Your task to perform on an android device: Search for "razer blackwidow" on bestbuy.com, select the first entry, add it to the cart, then select checkout. Image 0: 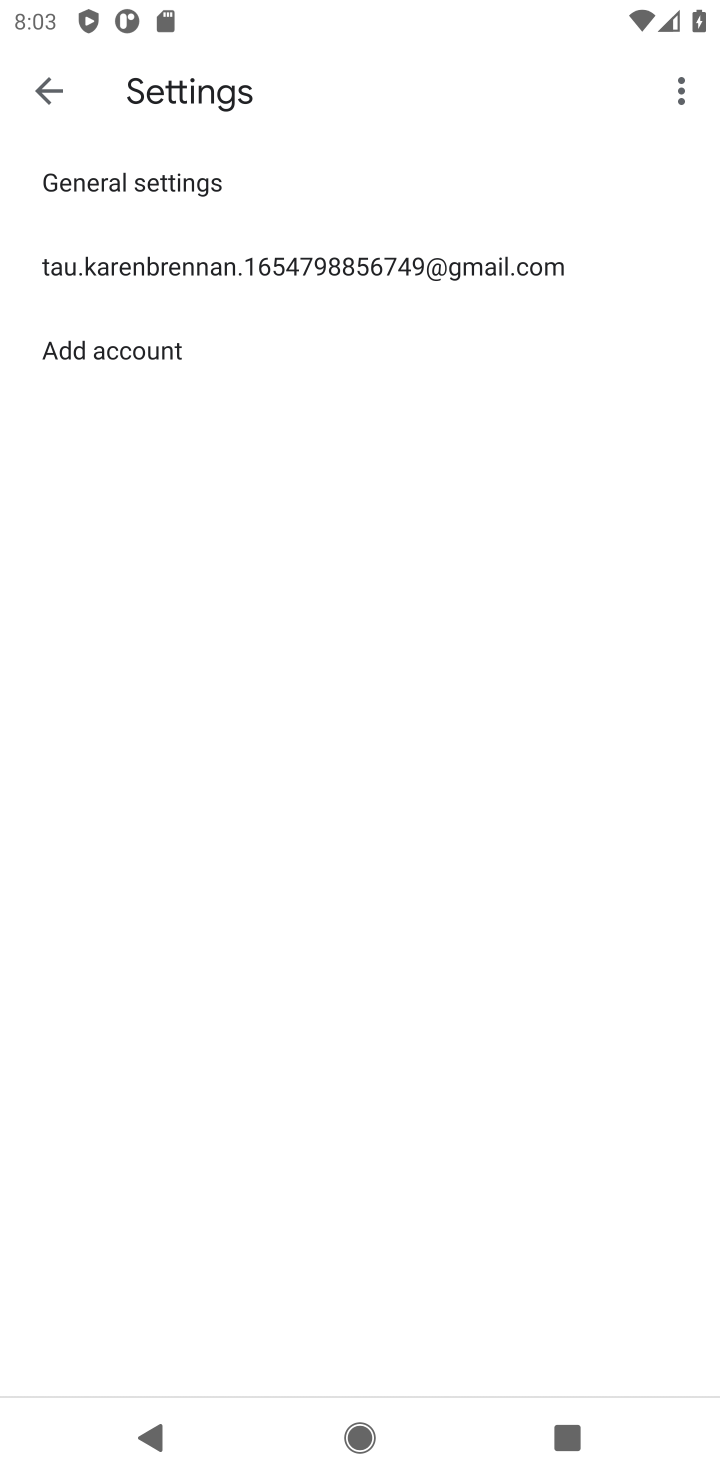
Step 0: click (46, 97)
Your task to perform on an android device: Search for "razer blackwidow" on bestbuy.com, select the first entry, add it to the cart, then select checkout. Image 1: 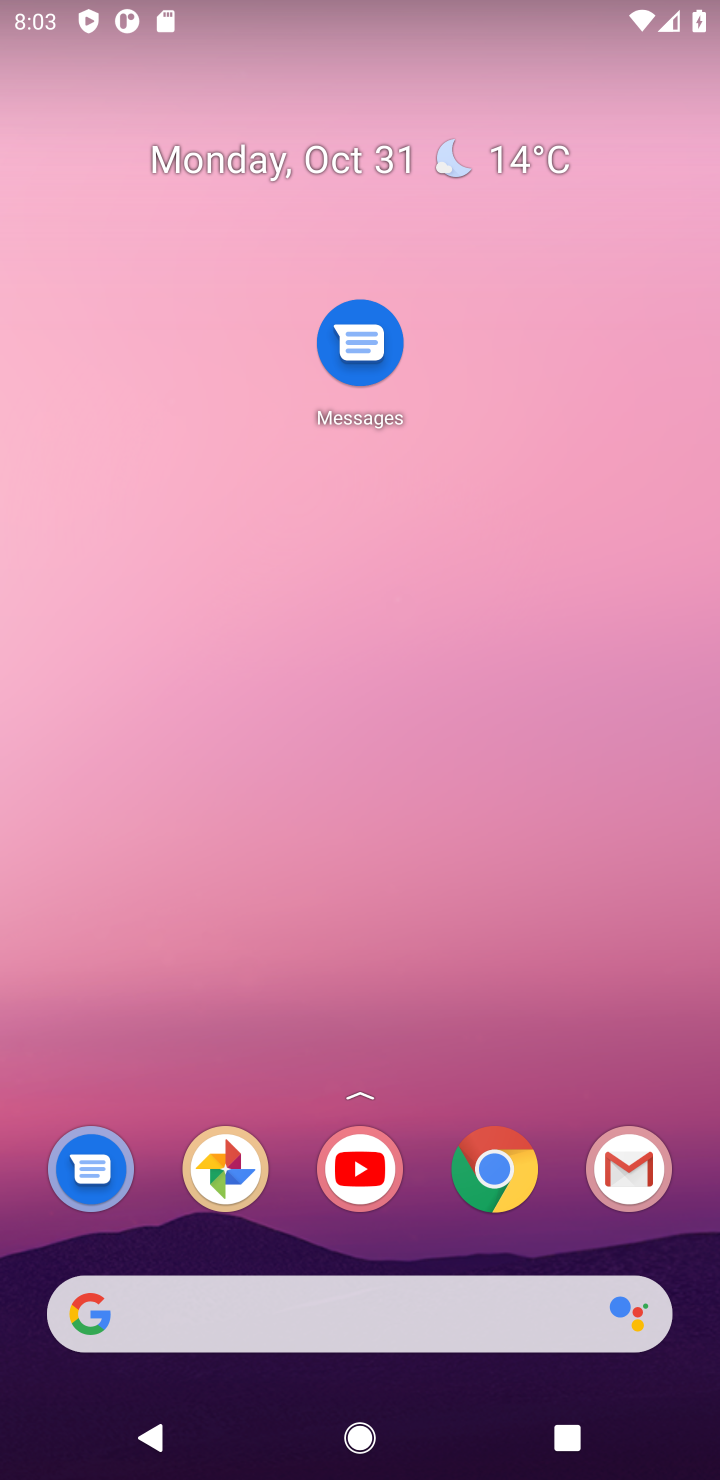
Step 1: drag from (304, 1254) to (279, 373)
Your task to perform on an android device: Search for "razer blackwidow" on bestbuy.com, select the first entry, add it to the cart, then select checkout. Image 2: 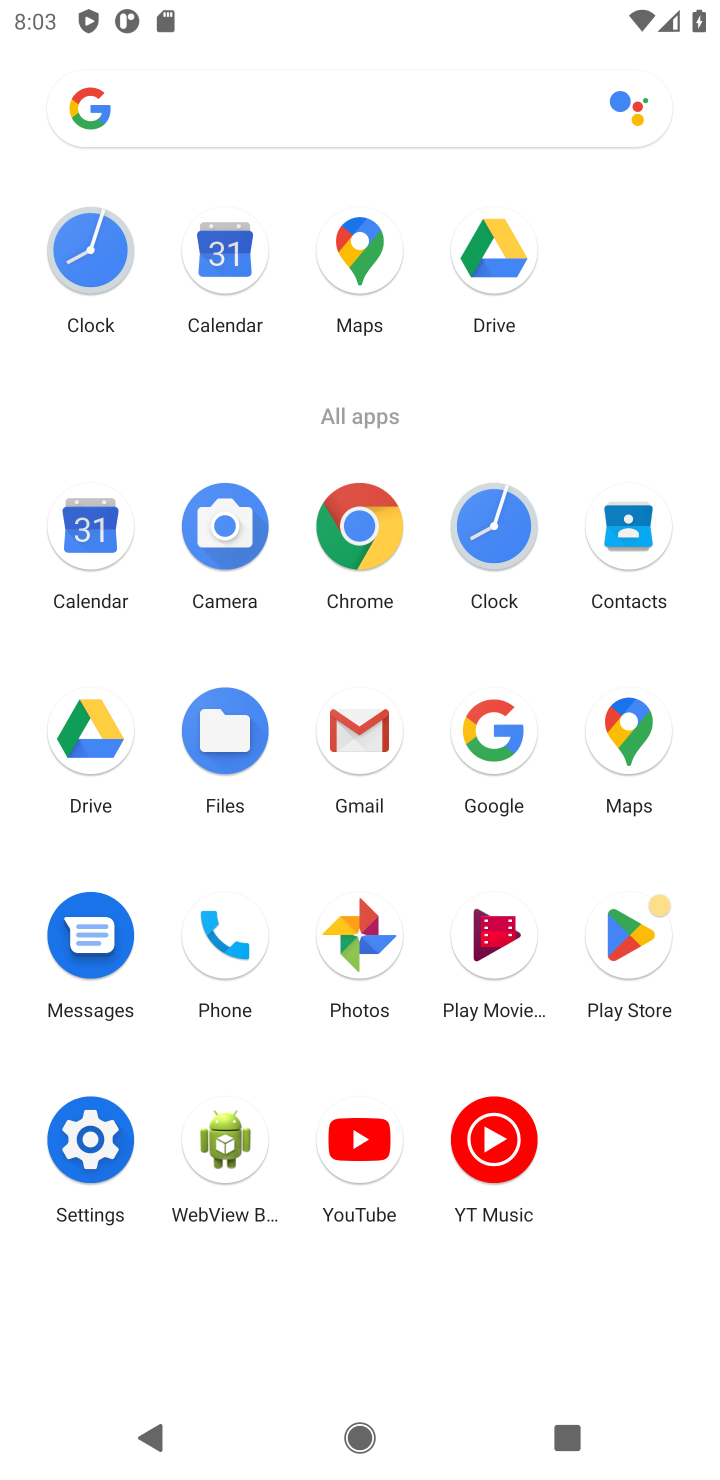
Step 2: click (497, 714)
Your task to perform on an android device: Search for "razer blackwidow" on bestbuy.com, select the first entry, add it to the cart, then select checkout. Image 3: 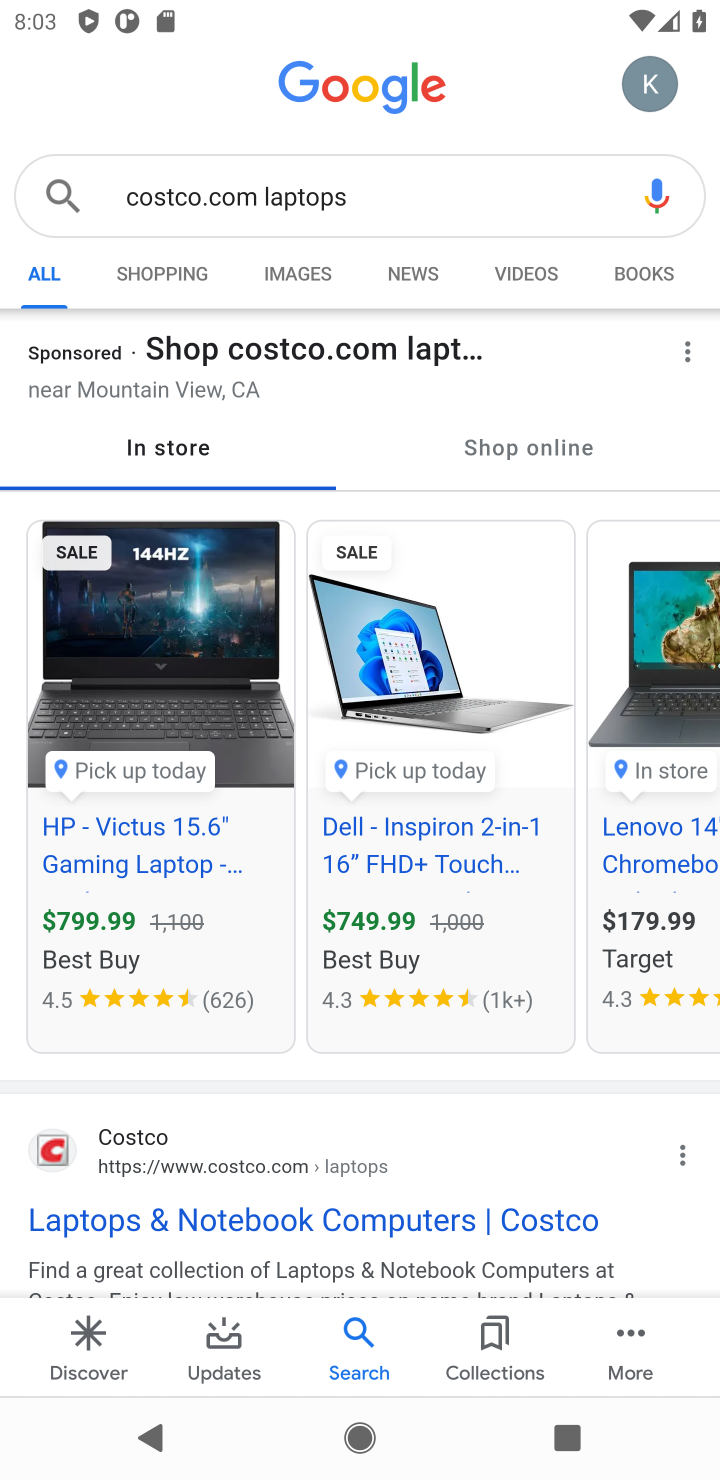
Step 3: click (353, 183)
Your task to perform on an android device: Search for "razer blackwidow" on bestbuy.com, select the first entry, add it to the cart, then select checkout. Image 4: 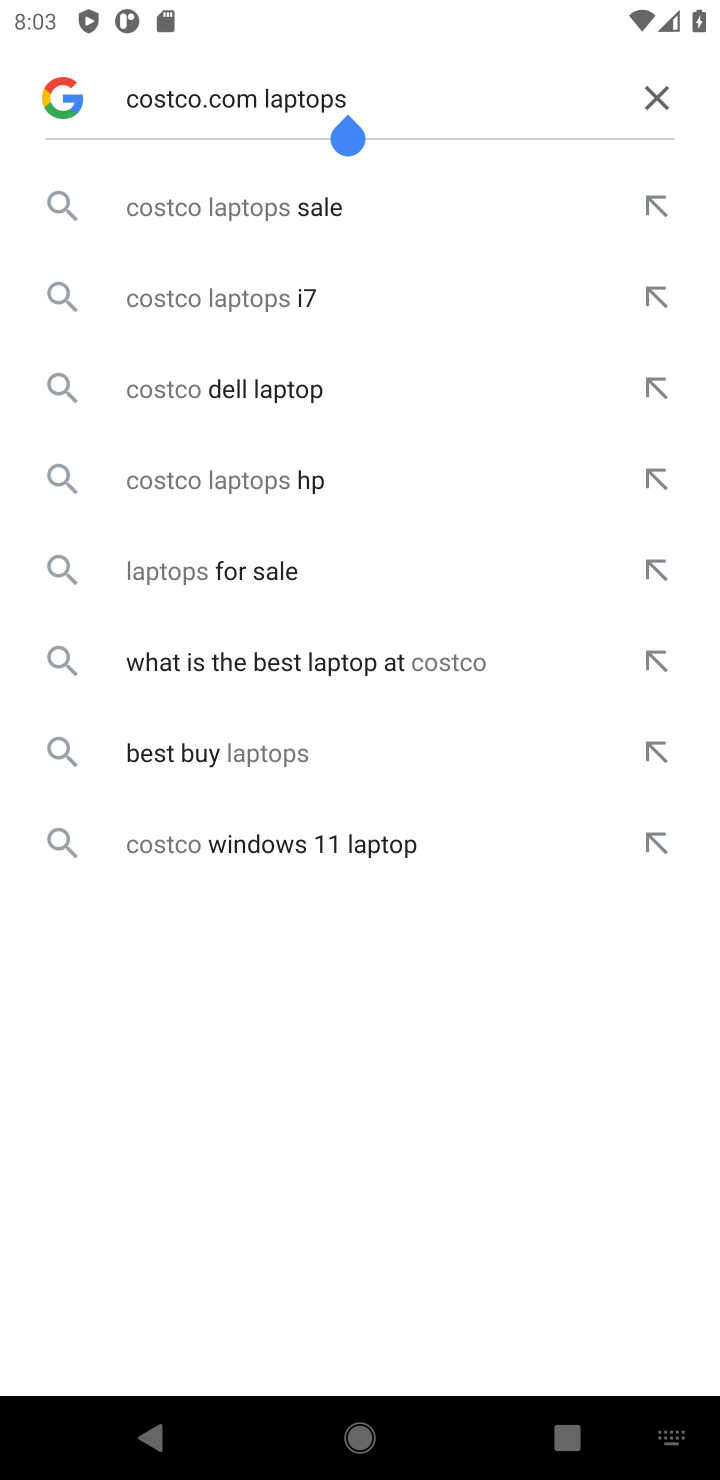
Step 4: click (644, 111)
Your task to perform on an android device: Search for "razer blackwidow" on bestbuy.com, select the first entry, add it to the cart, then select checkout. Image 5: 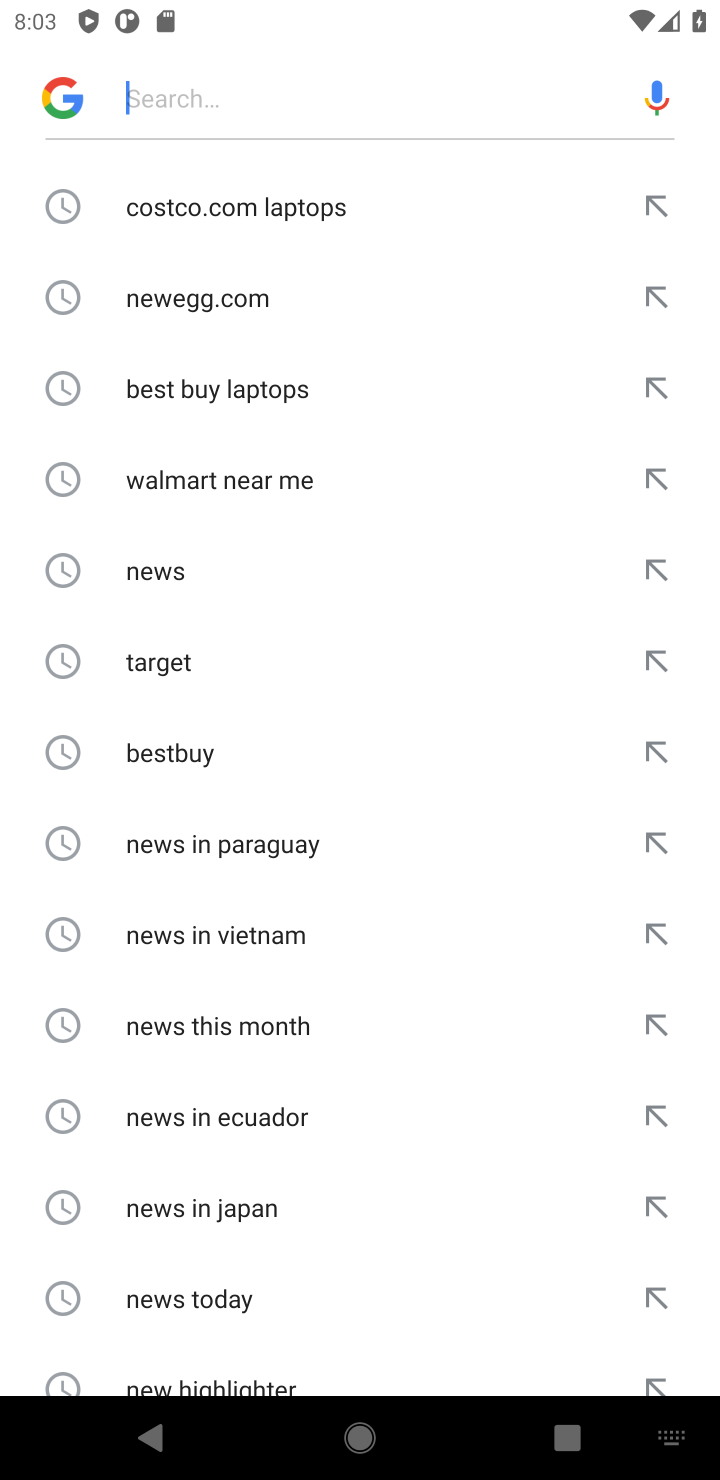
Step 5: click (292, 60)
Your task to perform on an android device: Search for "razer blackwidow" on bestbuy.com, select the first entry, add it to the cart, then select checkout. Image 6: 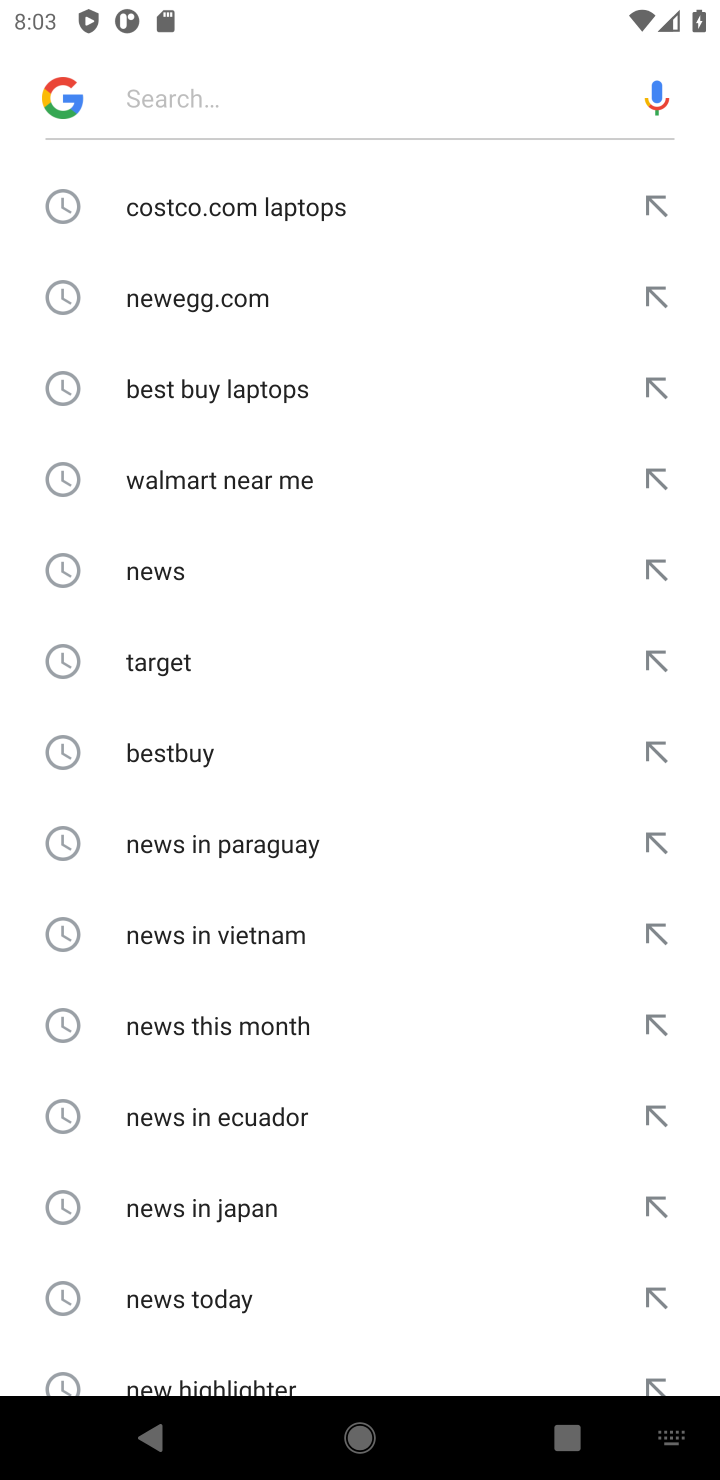
Step 6: type "bestbuy "
Your task to perform on an android device: Search for "razer blackwidow" on bestbuy.com, select the first entry, add it to the cart, then select checkout. Image 7: 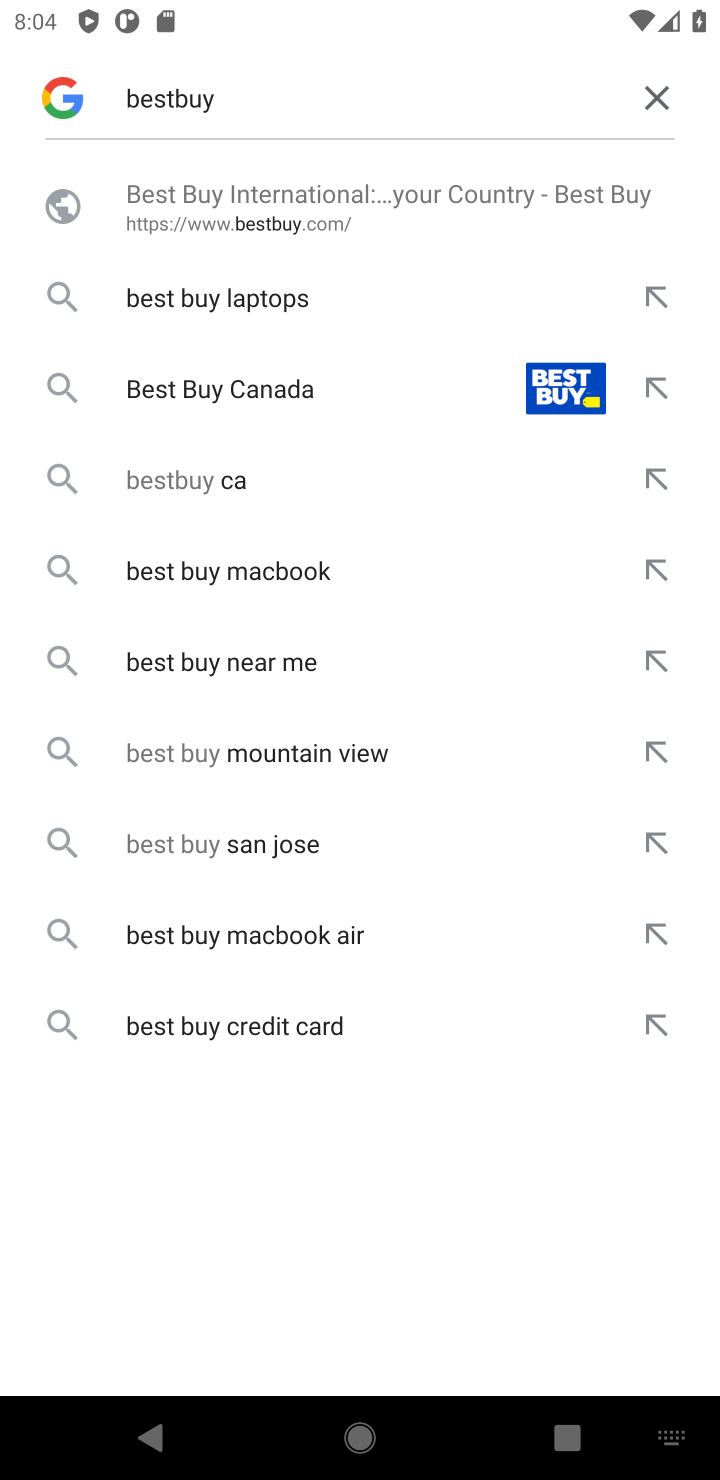
Step 7: click (229, 305)
Your task to perform on an android device: Search for "razer blackwidow" on bestbuy.com, select the first entry, add it to the cart, then select checkout. Image 8: 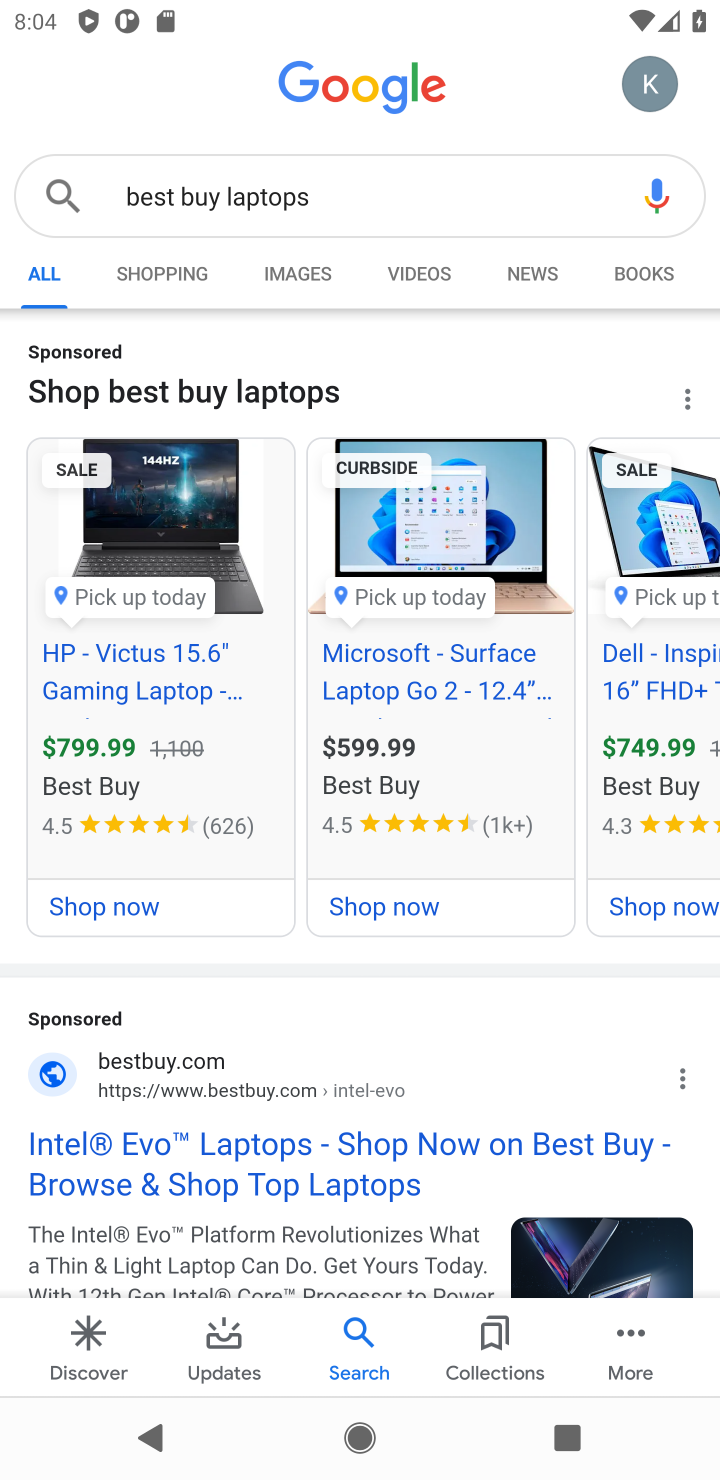
Step 8: drag from (294, 1067) to (406, 393)
Your task to perform on an android device: Search for "razer blackwidow" on bestbuy.com, select the first entry, add it to the cart, then select checkout. Image 9: 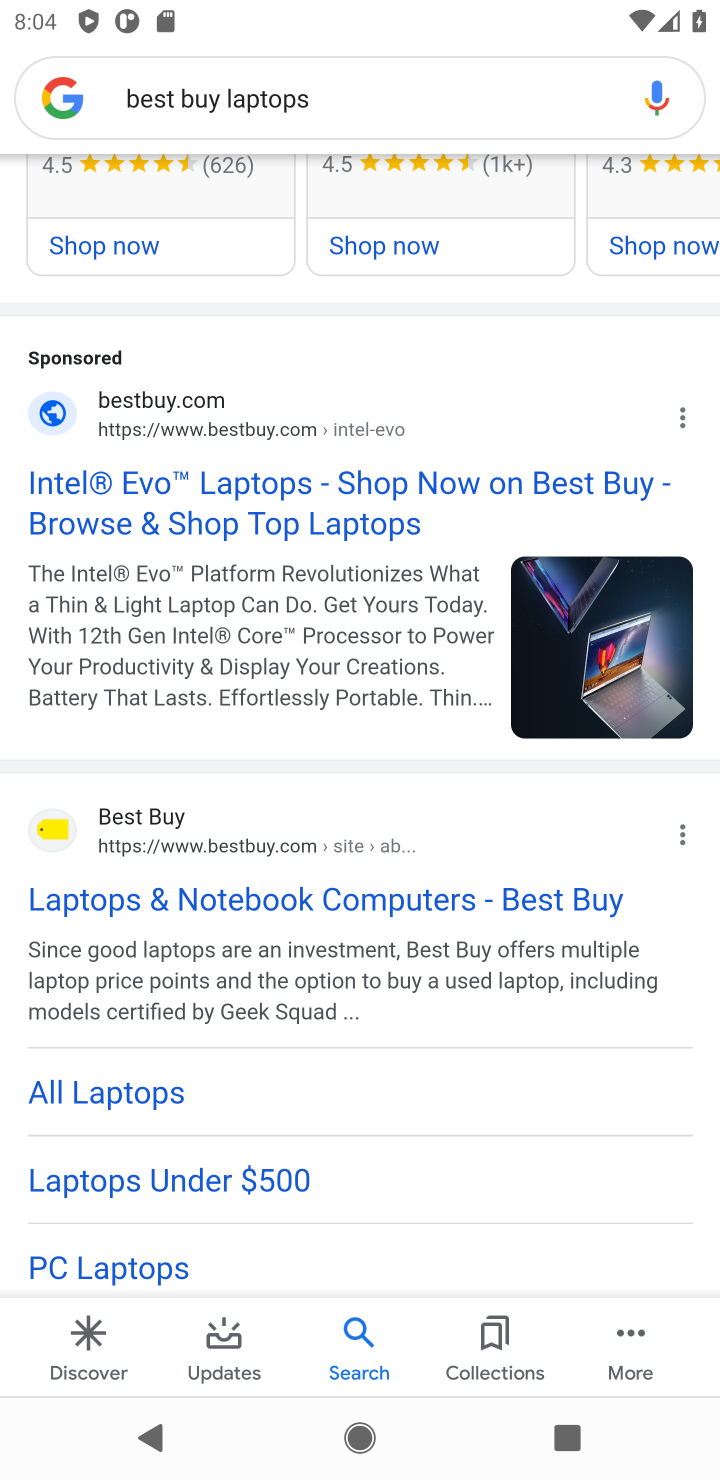
Step 9: click (47, 819)
Your task to perform on an android device: Search for "razer blackwidow" on bestbuy.com, select the first entry, add it to the cart, then select checkout. Image 10: 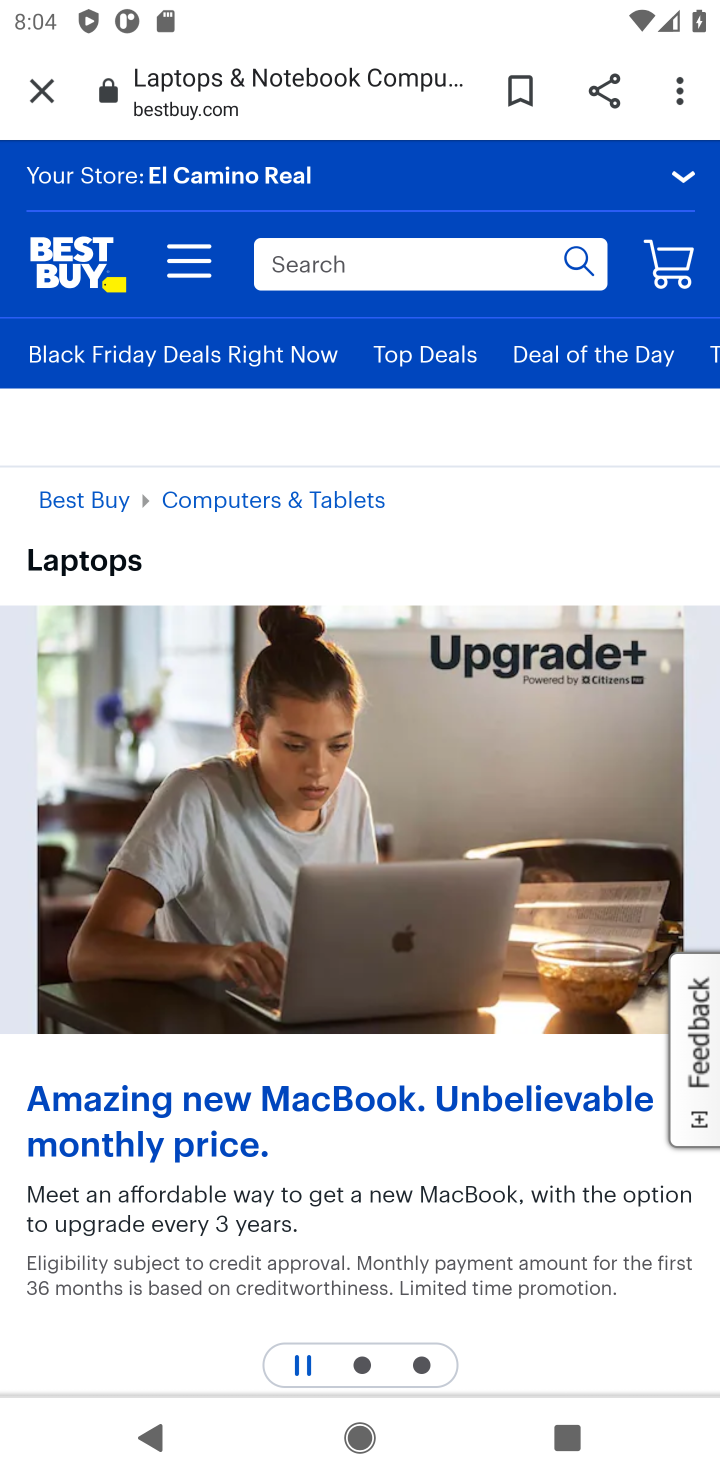
Step 10: click (329, 254)
Your task to perform on an android device: Search for "razer blackwidow" on bestbuy.com, select the first entry, add it to the cart, then select checkout. Image 11: 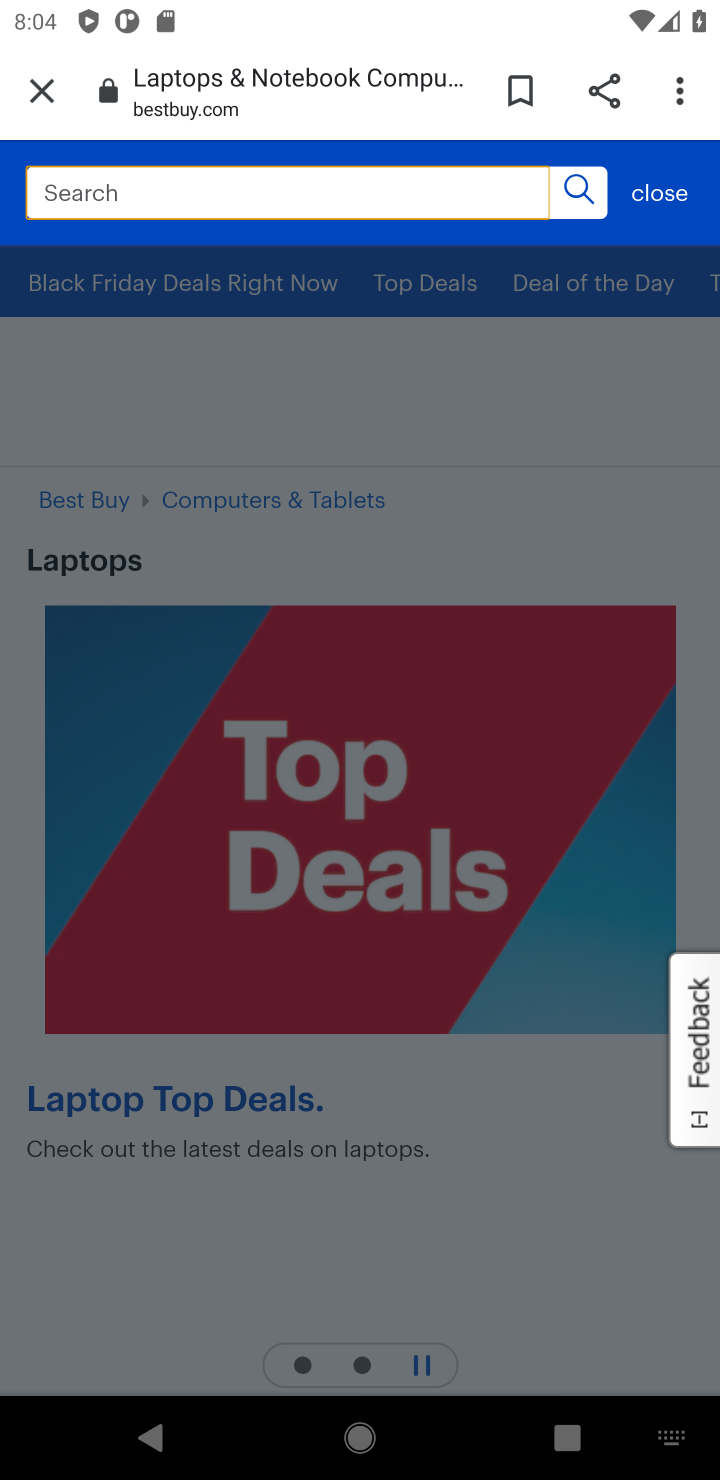
Step 11: click (155, 190)
Your task to perform on an android device: Search for "razer blackwidow" on bestbuy.com, select the first entry, add it to the cart, then select checkout. Image 12: 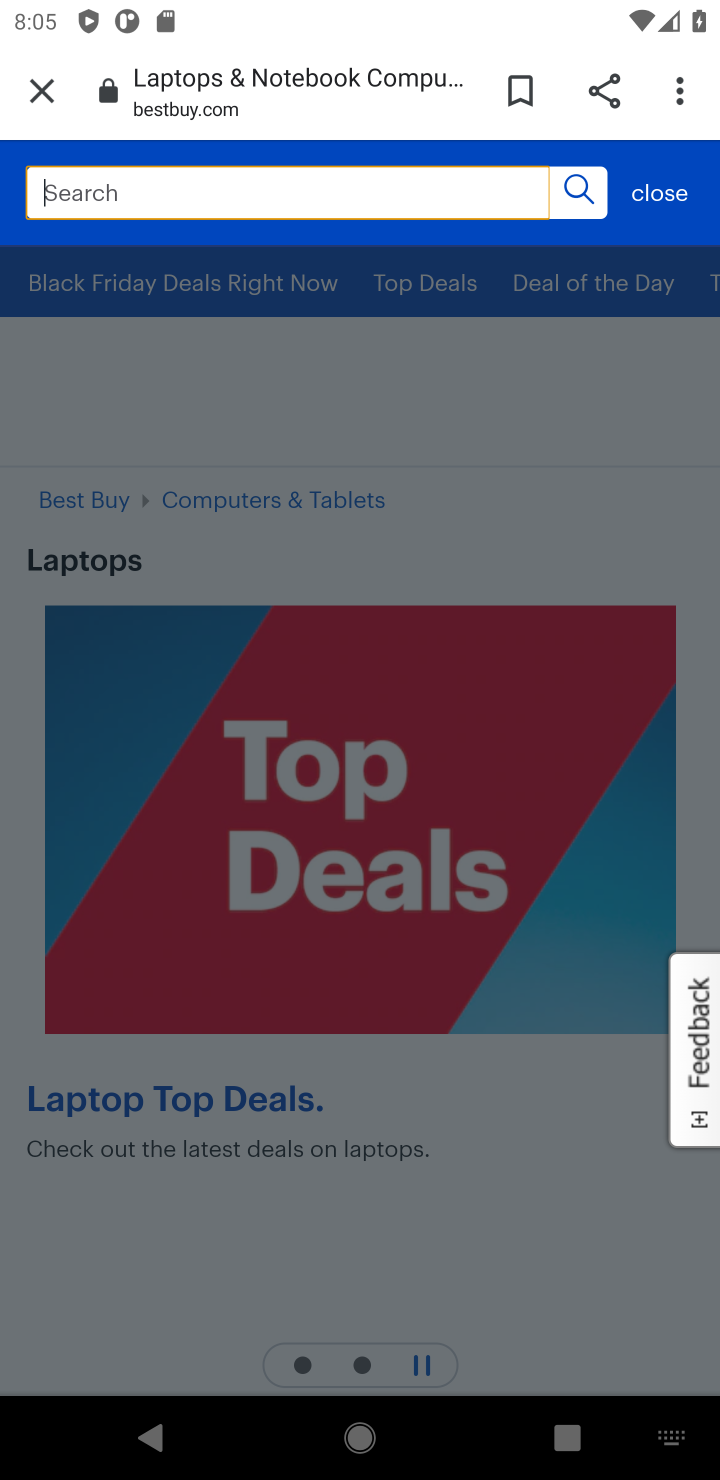
Step 12: click (122, 178)
Your task to perform on an android device: Search for "razer blackwidow" on bestbuy.com, select the first entry, add it to the cart, then select checkout. Image 13: 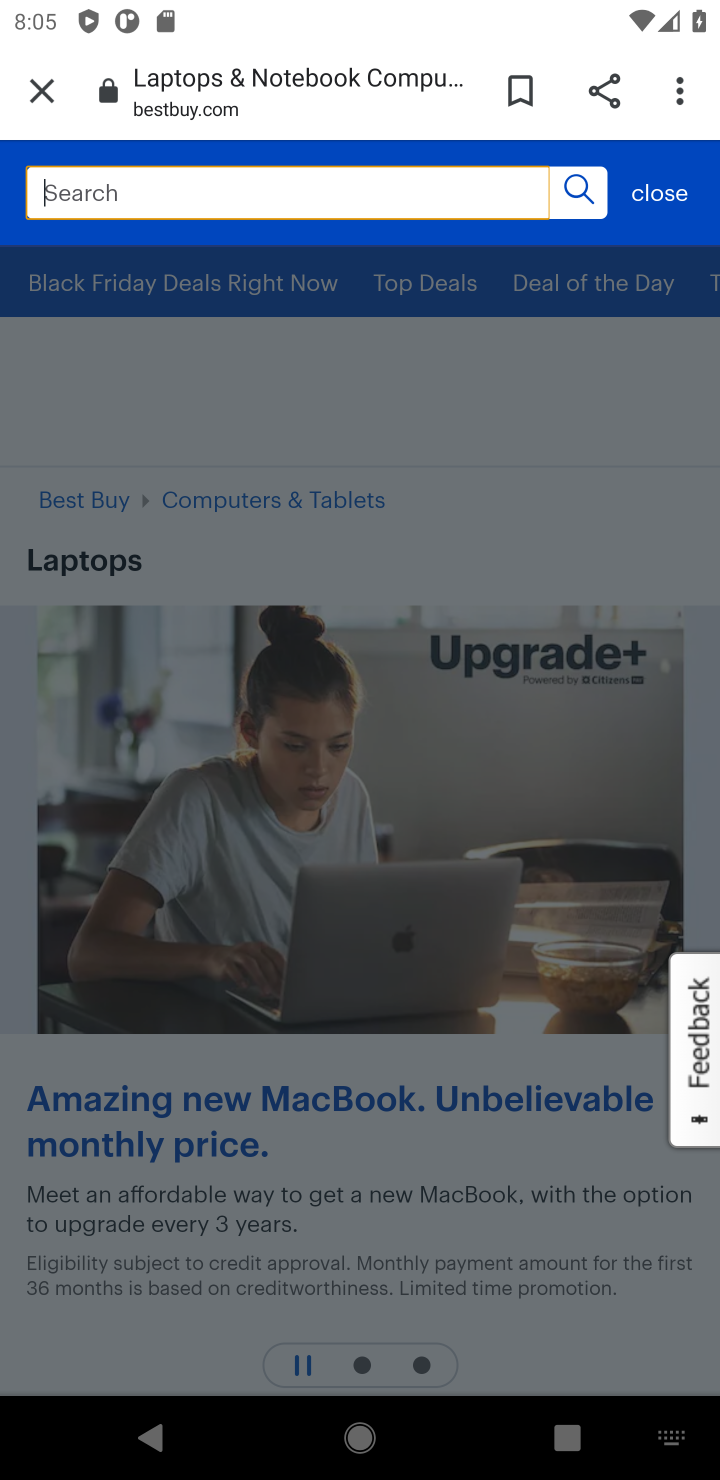
Step 13: type "razer blackwidow "
Your task to perform on an android device: Search for "razer blackwidow" on bestbuy.com, select the first entry, add it to the cart, then select checkout. Image 14: 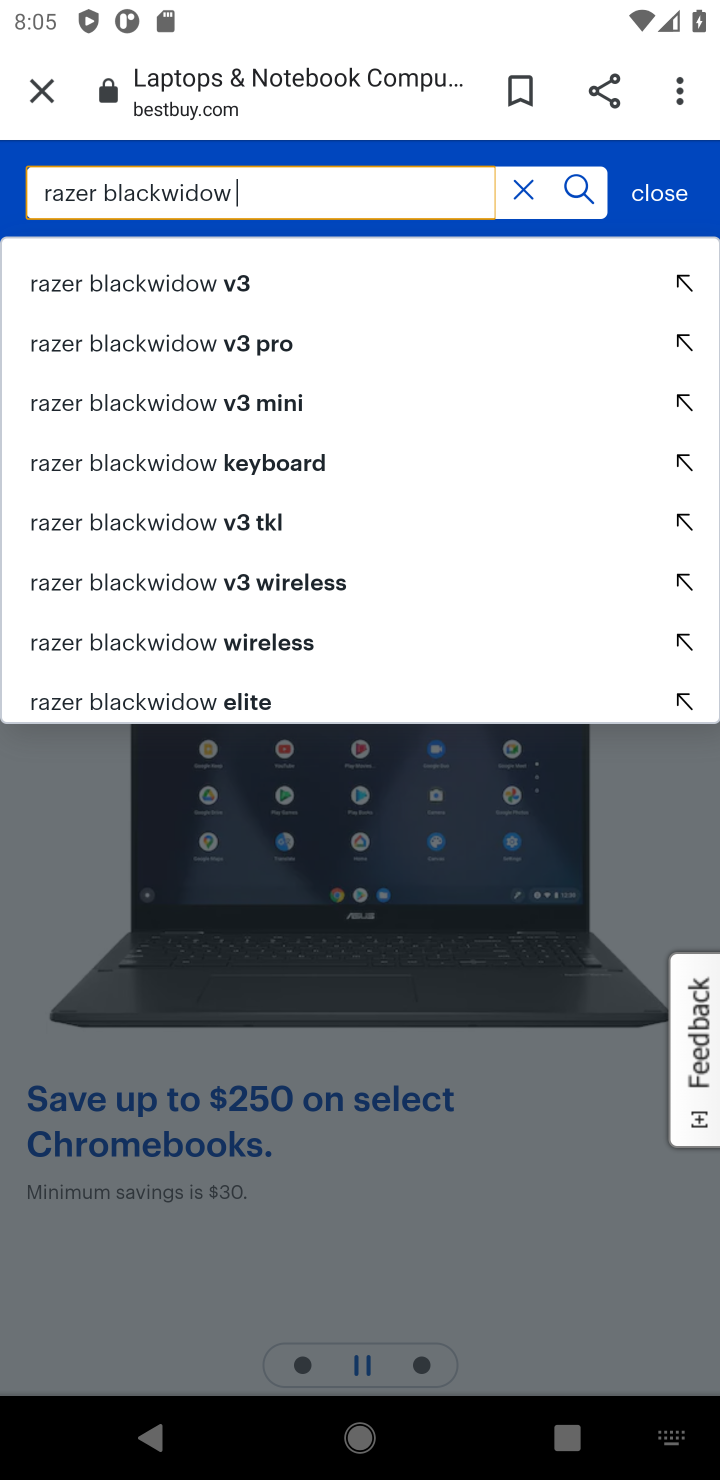
Step 14: click (188, 279)
Your task to perform on an android device: Search for "razer blackwidow" on bestbuy.com, select the first entry, add it to the cart, then select checkout. Image 15: 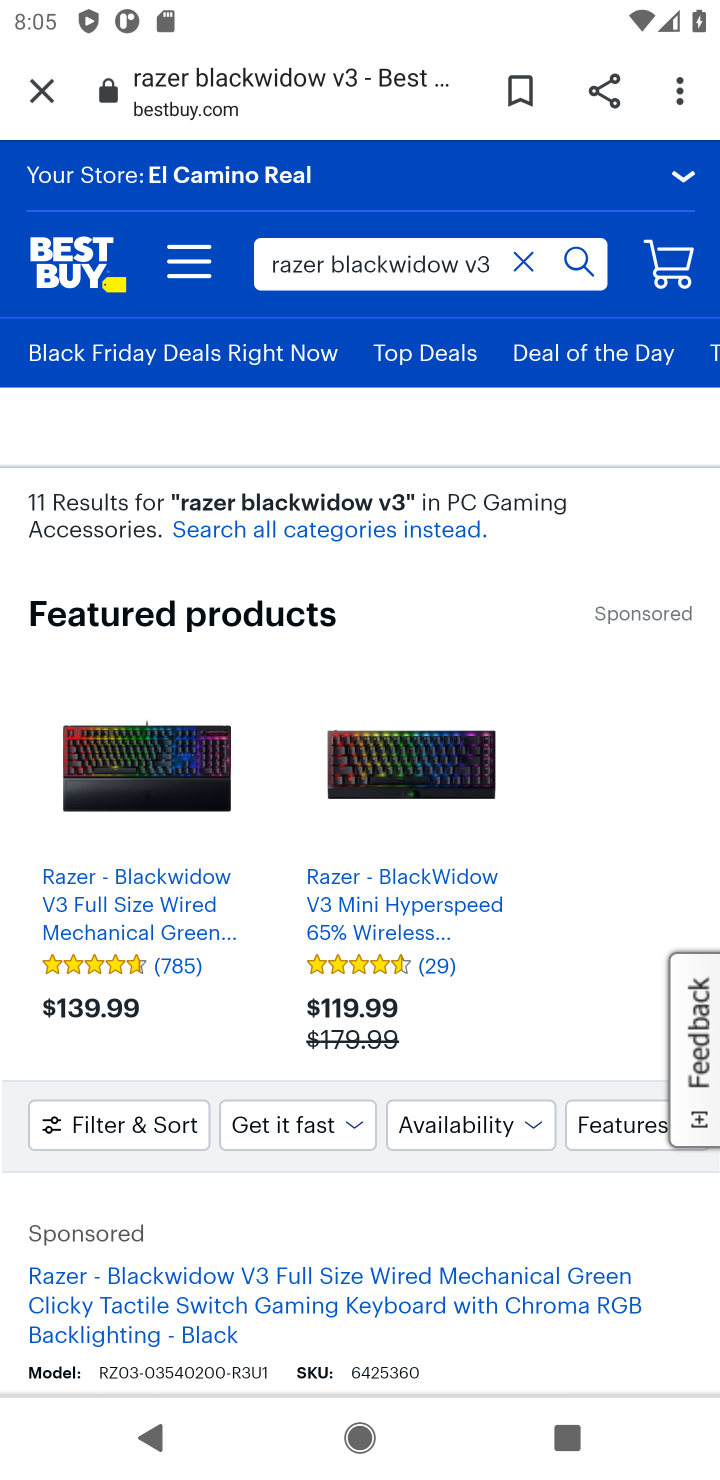
Step 15: click (139, 797)
Your task to perform on an android device: Search for "razer blackwidow" on bestbuy.com, select the first entry, add it to the cart, then select checkout. Image 16: 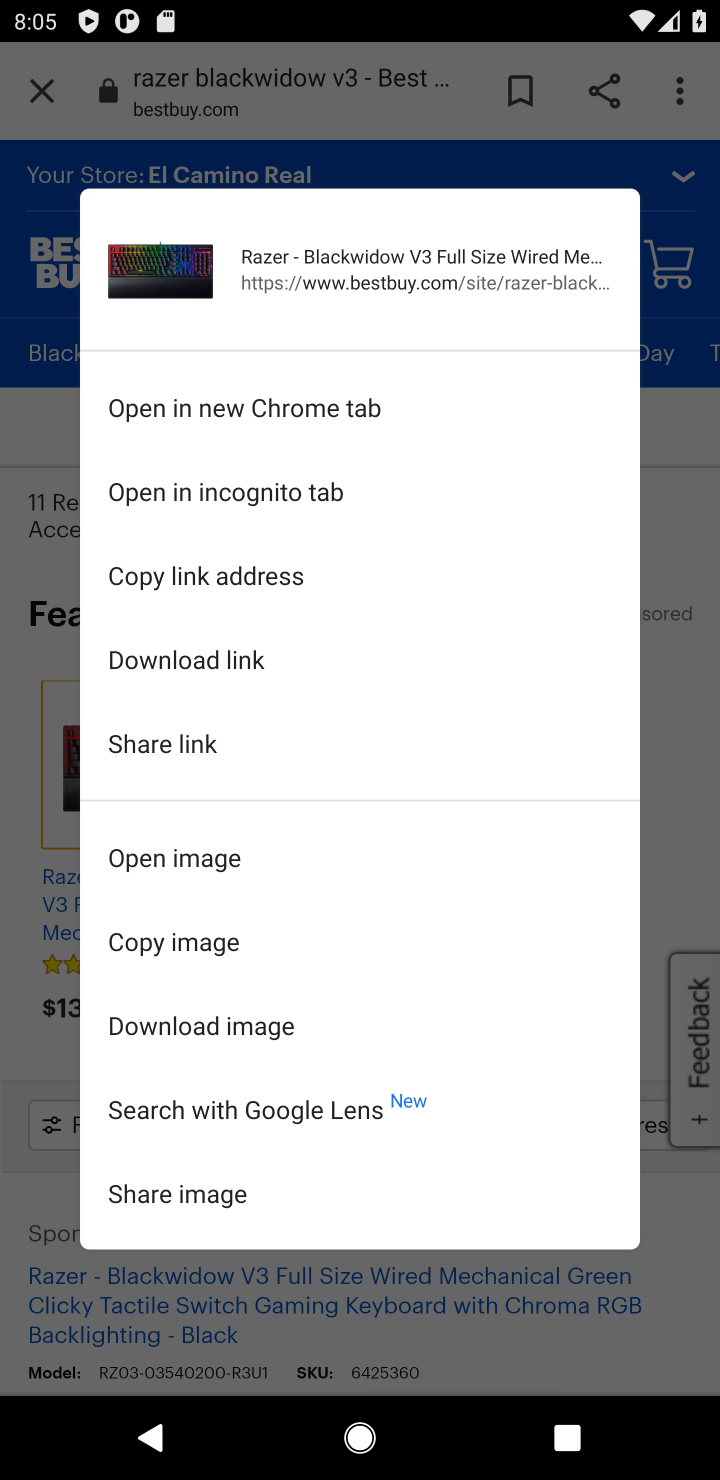
Step 16: click (680, 621)
Your task to perform on an android device: Search for "razer blackwidow" on bestbuy.com, select the first entry, add it to the cart, then select checkout. Image 17: 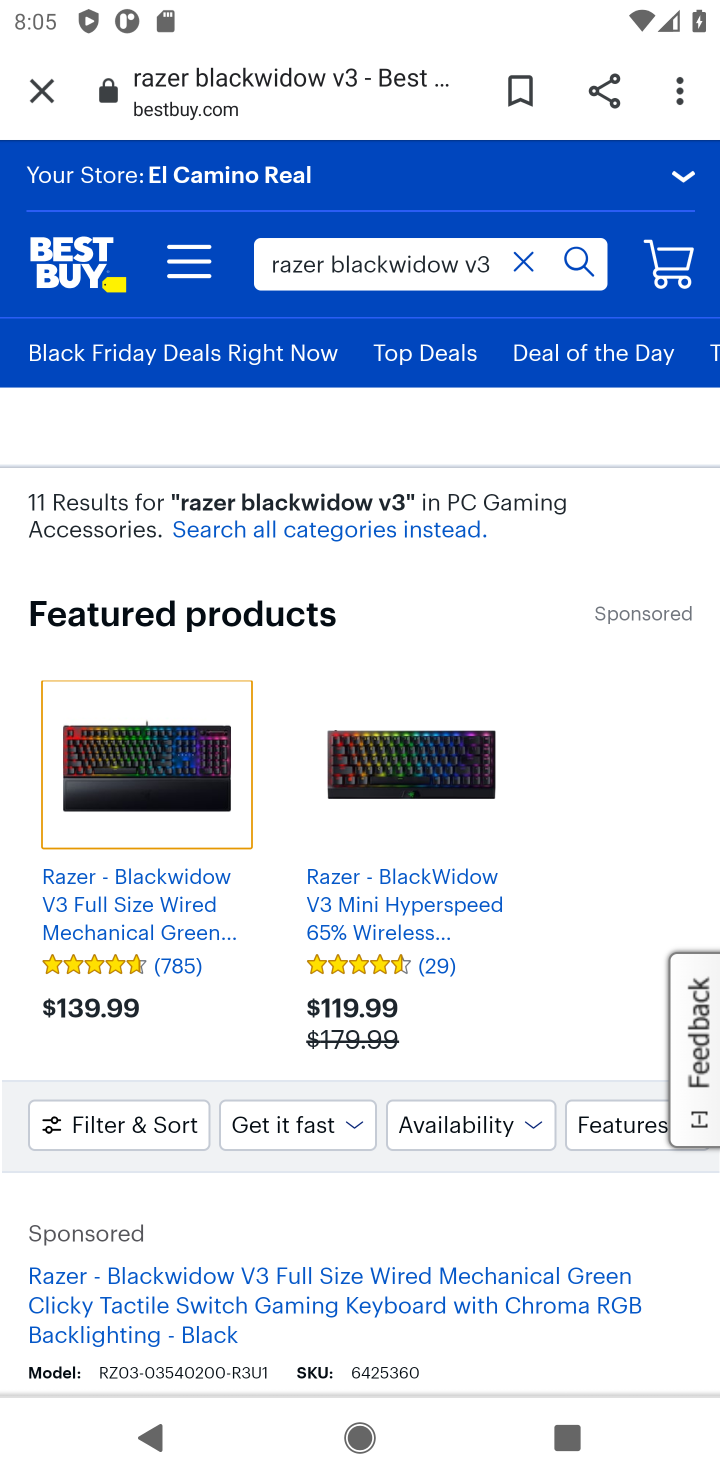
Step 17: click (135, 936)
Your task to perform on an android device: Search for "razer blackwidow" on bestbuy.com, select the first entry, add it to the cart, then select checkout. Image 18: 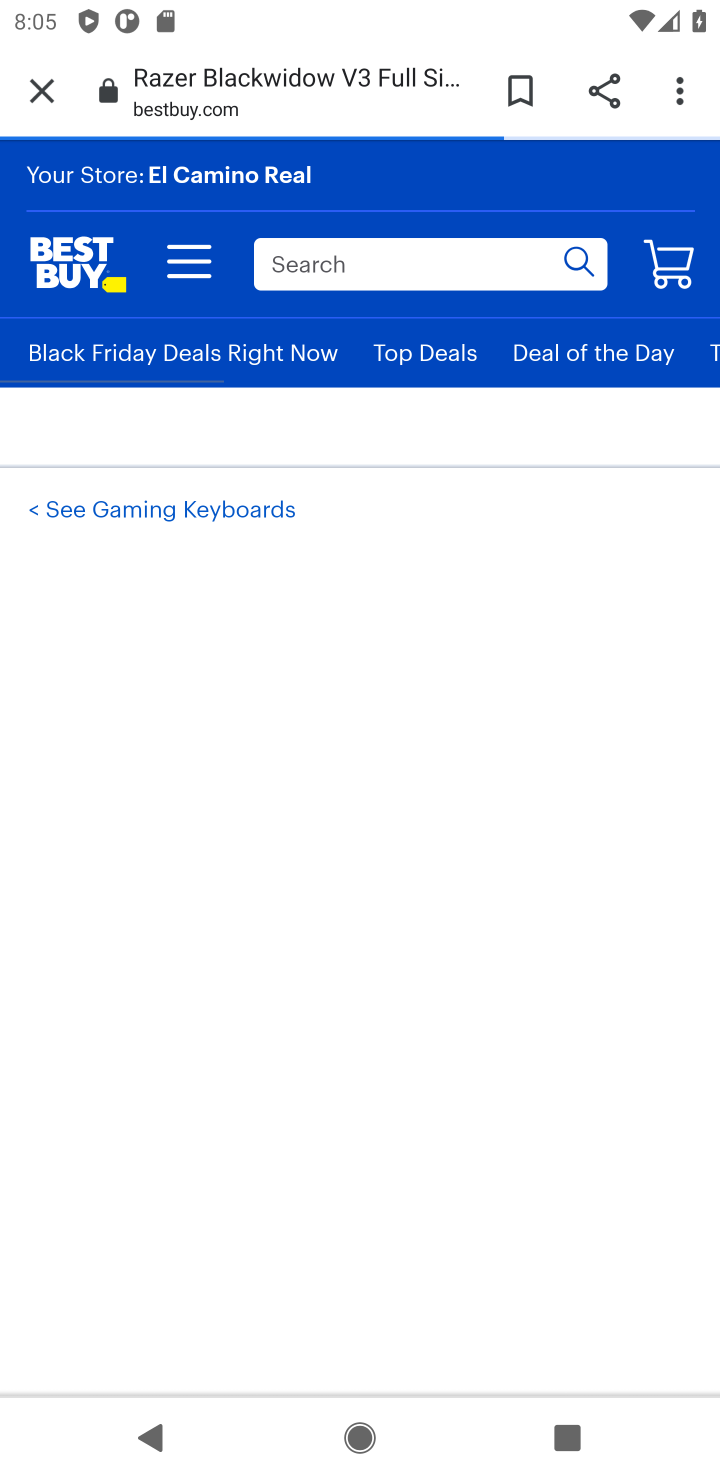
Step 18: click (115, 1004)
Your task to perform on an android device: Search for "razer blackwidow" on bestbuy.com, select the first entry, add it to the cart, then select checkout. Image 19: 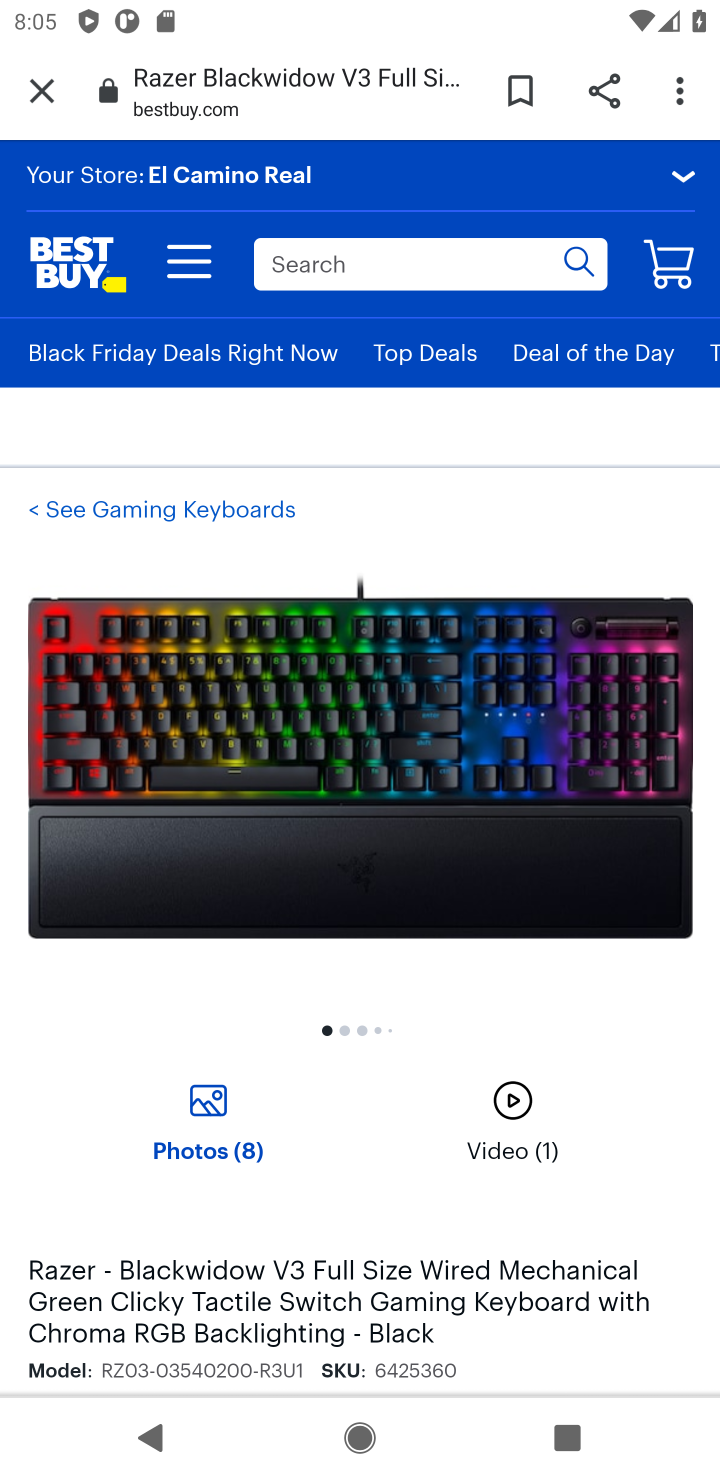
Step 19: drag from (398, 956) to (477, 355)
Your task to perform on an android device: Search for "razer blackwidow" on bestbuy.com, select the first entry, add it to the cart, then select checkout. Image 20: 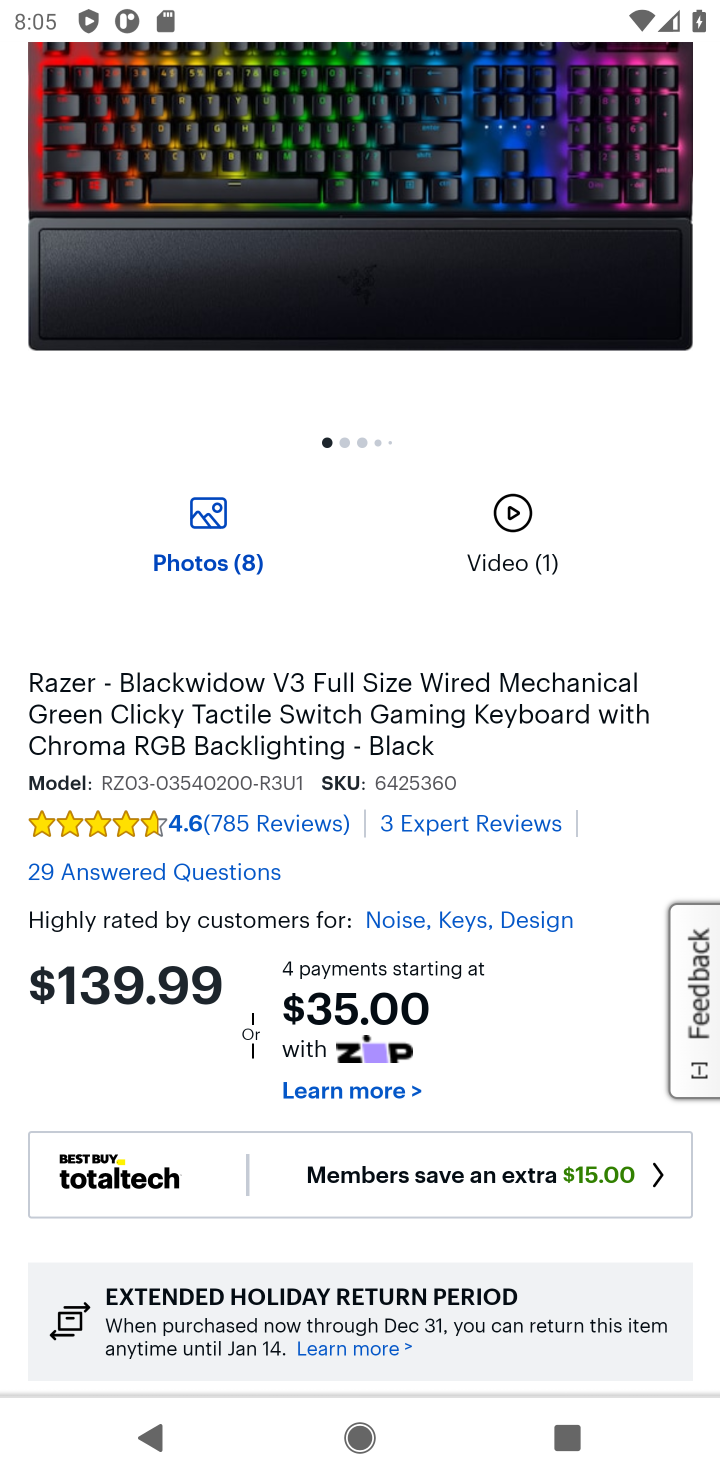
Step 20: drag from (454, 1173) to (476, 312)
Your task to perform on an android device: Search for "razer blackwidow" on bestbuy.com, select the first entry, add it to the cart, then select checkout. Image 21: 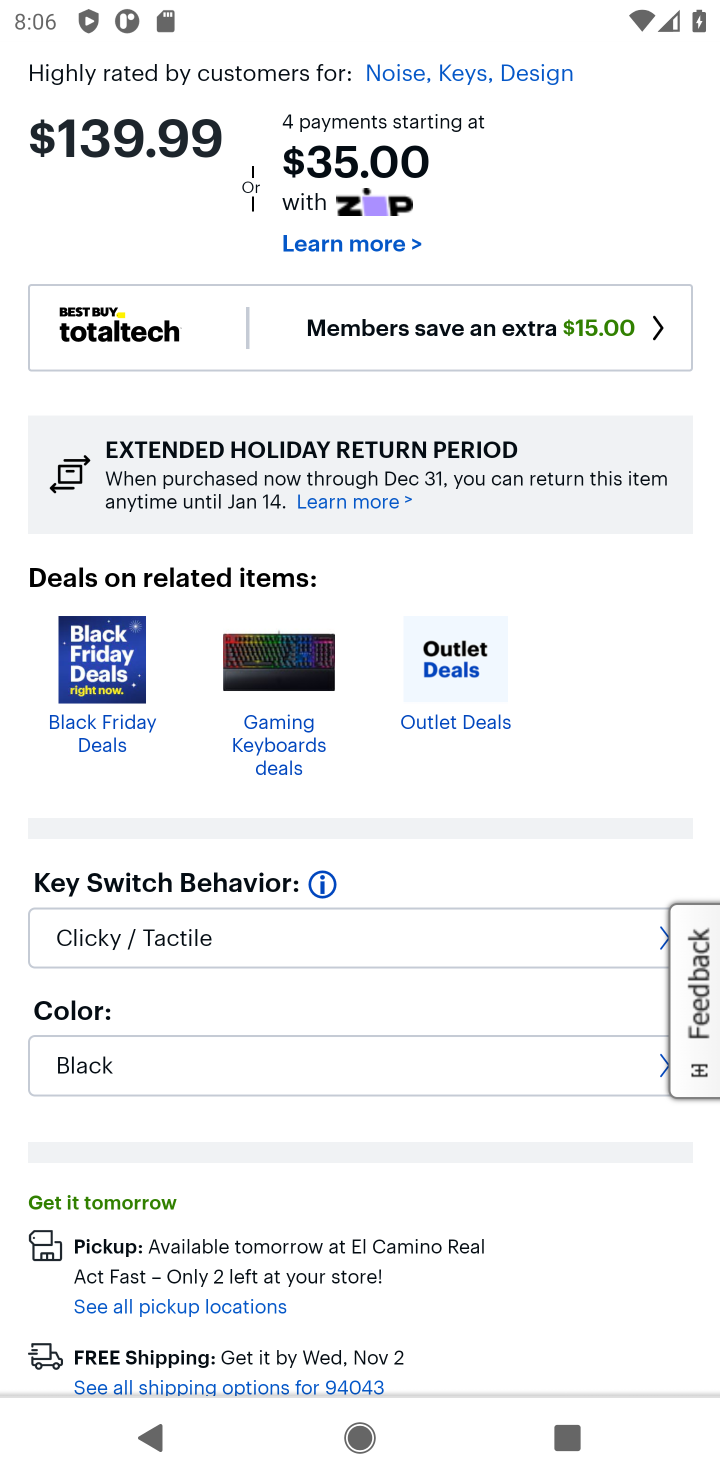
Step 21: drag from (335, 1030) to (401, 203)
Your task to perform on an android device: Search for "razer blackwidow" on bestbuy.com, select the first entry, add it to the cart, then select checkout. Image 22: 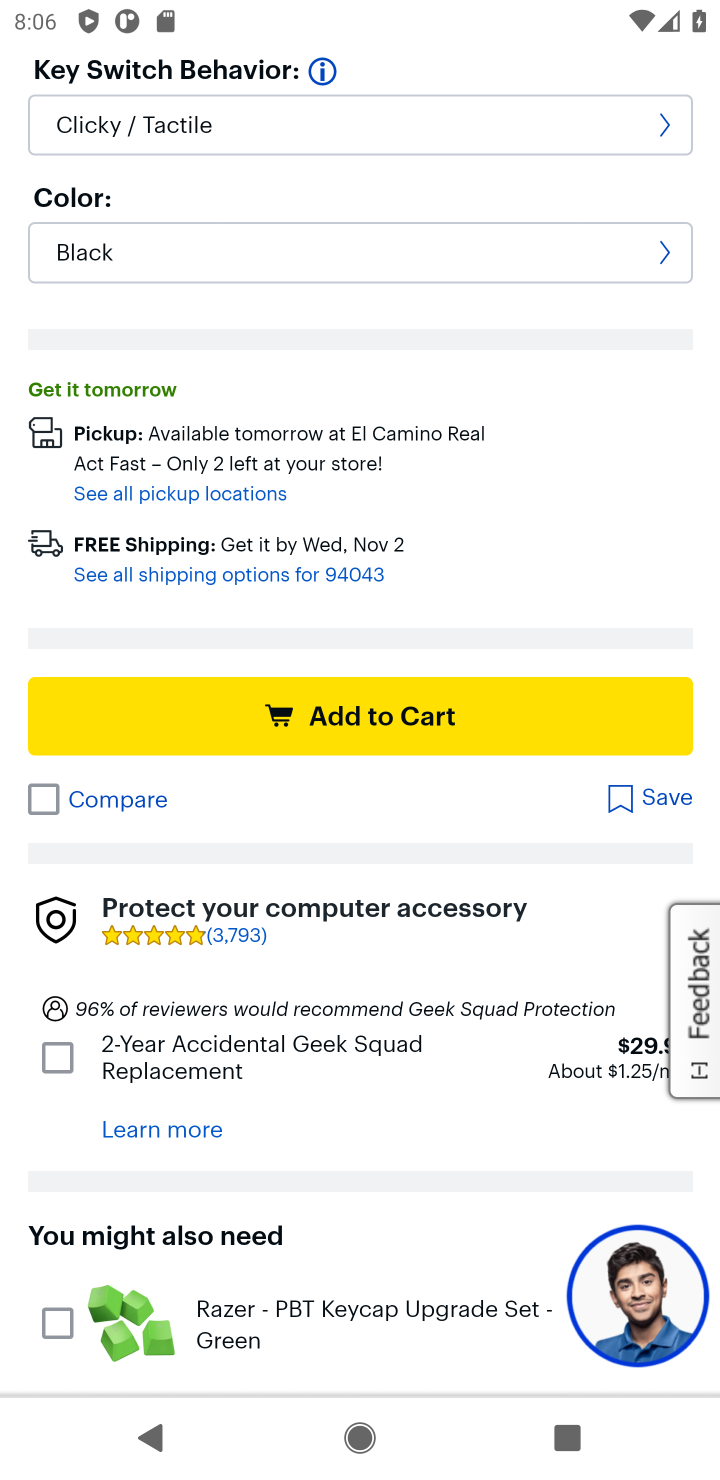
Step 22: click (423, 720)
Your task to perform on an android device: Search for "razer blackwidow" on bestbuy.com, select the first entry, add it to the cart, then select checkout. Image 23: 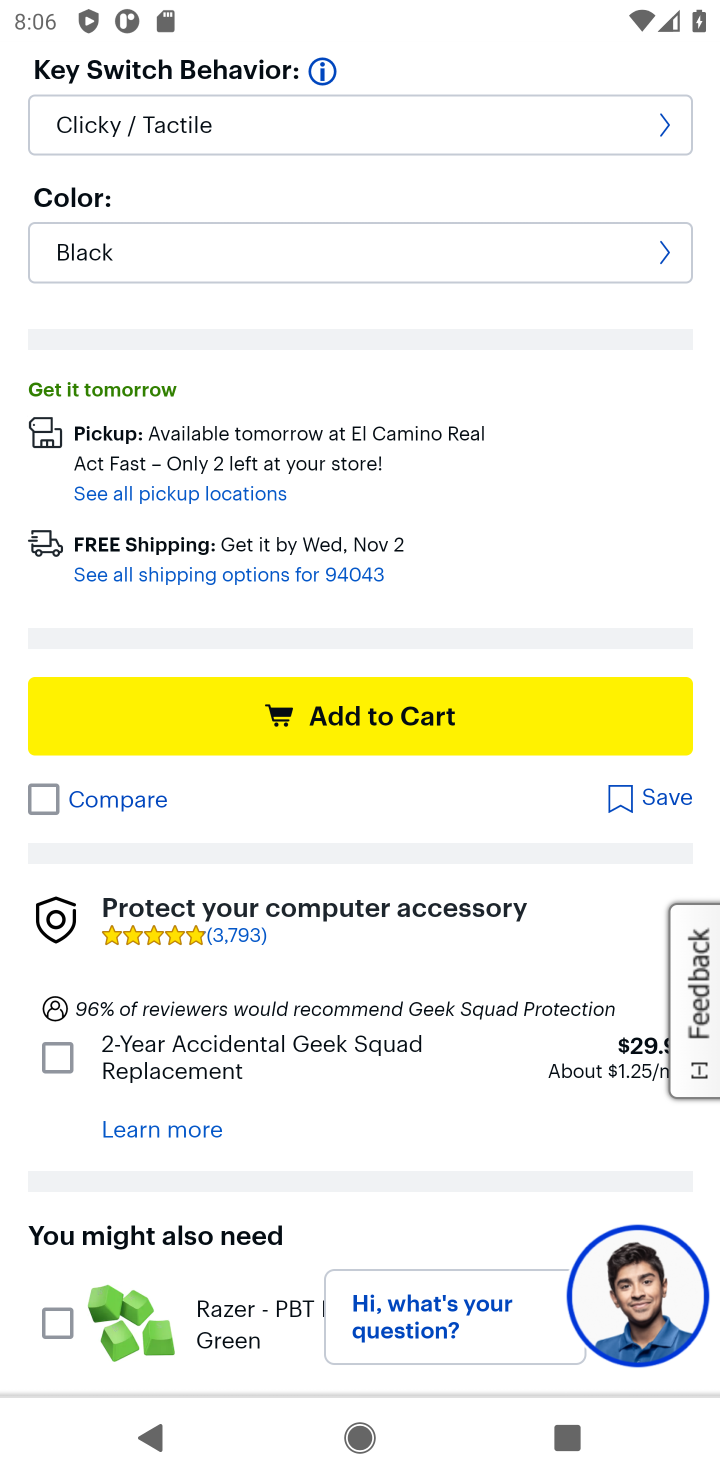
Step 23: click (415, 720)
Your task to perform on an android device: Search for "razer blackwidow" on bestbuy.com, select the first entry, add it to the cart, then select checkout. Image 24: 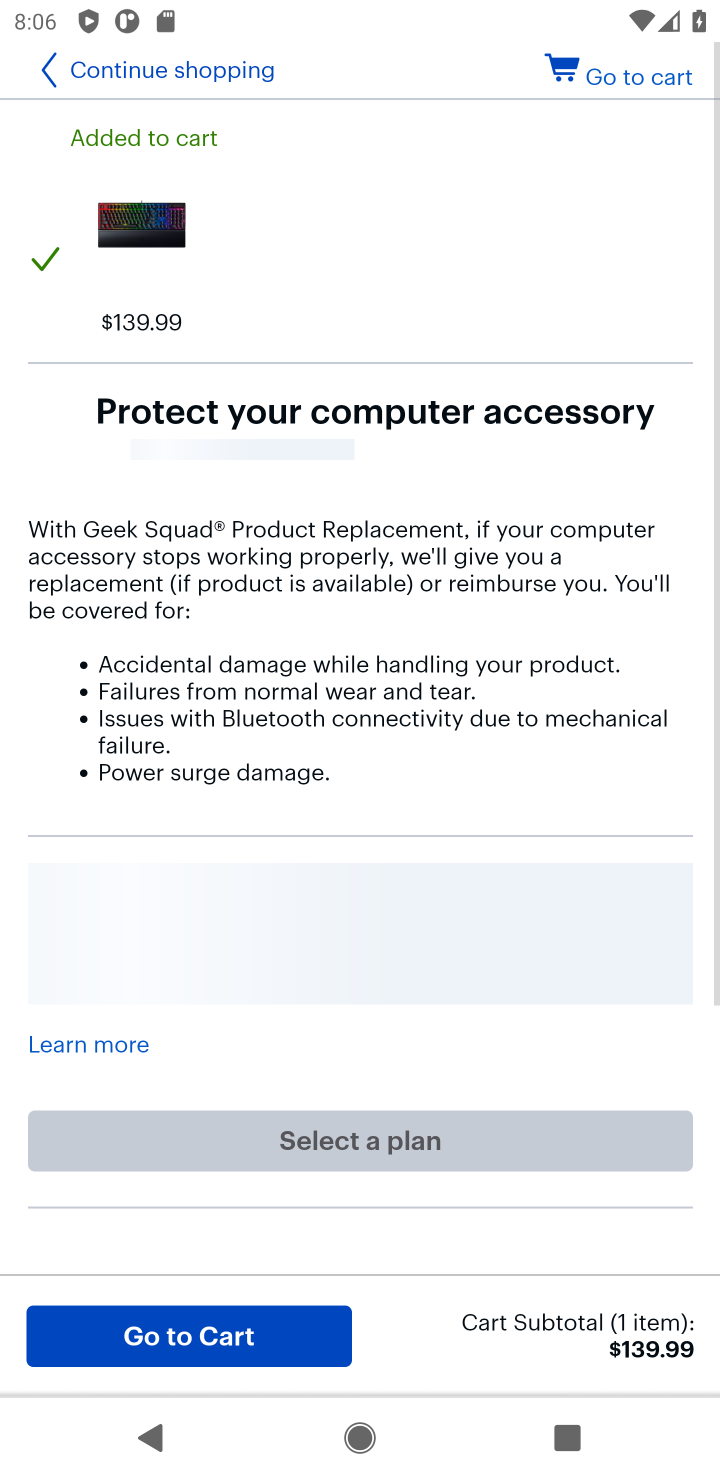
Step 24: task complete